Your task to perform on an android device: Add "logitech g903" to the cart on ebay.com Image 0: 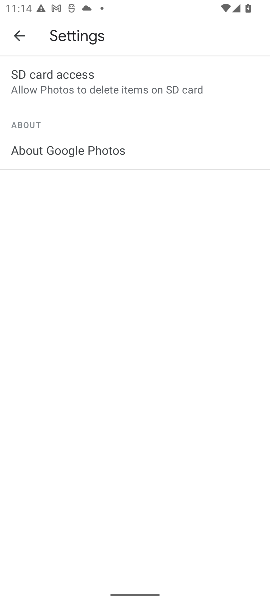
Step 0: press home button
Your task to perform on an android device: Add "logitech g903" to the cart on ebay.com Image 1: 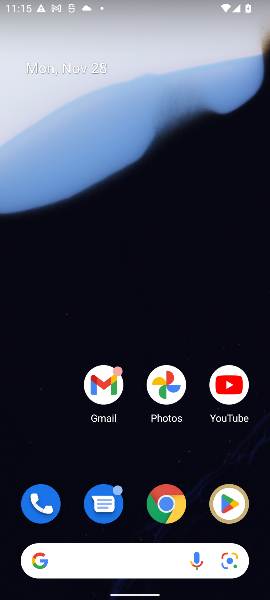
Step 1: click (161, 503)
Your task to perform on an android device: Add "logitech g903" to the cart on ebay.com Image 2: 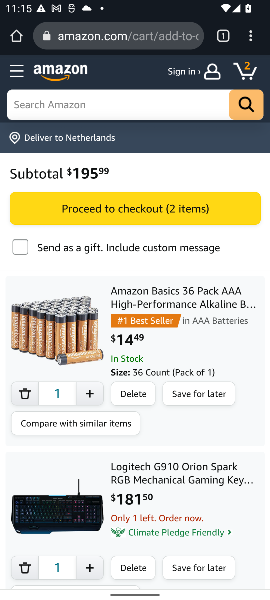
Step 2: click (110, 38)
Your task to perform on an android device: Add "logitech g903" to the cart on ebay.com Image 3: 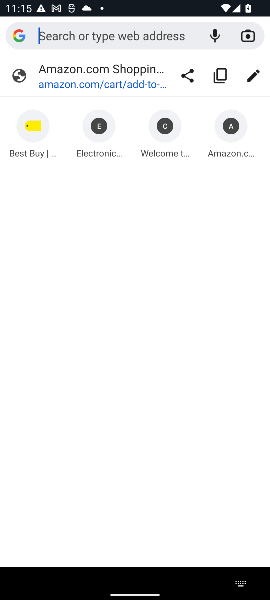
Step 3: type "ebay.com"
Your task to perform on an android device: Add "logitech g903" to the cart on ebay.com Image 4: 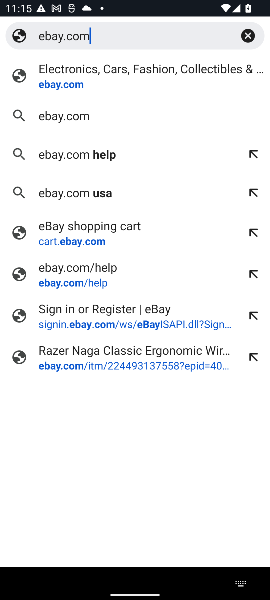
Step 4: click (55, 89)
Your task to perform on an android device: Add "logitech g903" to the cart on ebay.com Image 5: 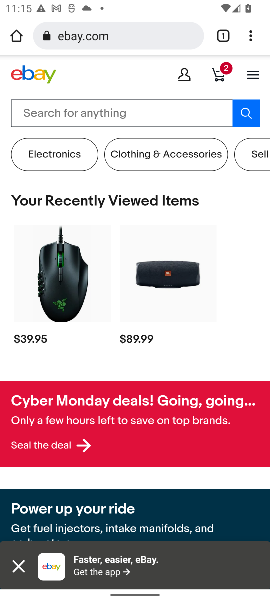
Step 5: click (56, 110)
Your task to perform on an android device: Add "logitech g903" to the cart on ebay.com Image 6: 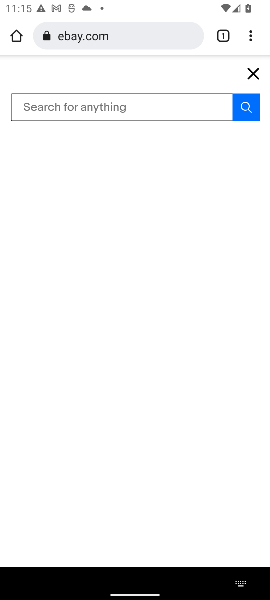
Step 6: type "logitech g903"
Your task to perform on an android device: Add "logitech g903" to the cart on ebay.com Image 7: 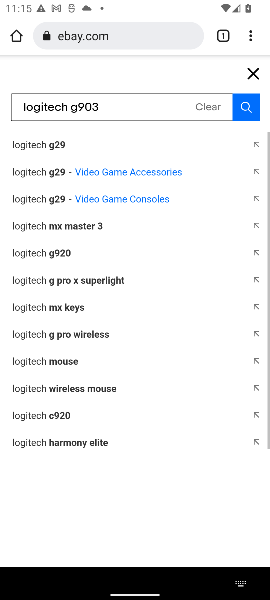
Step 7: click (244, 108)
Your task to perform on an android device: Add "logitech g903" to the cart on ebay.com Image 8: 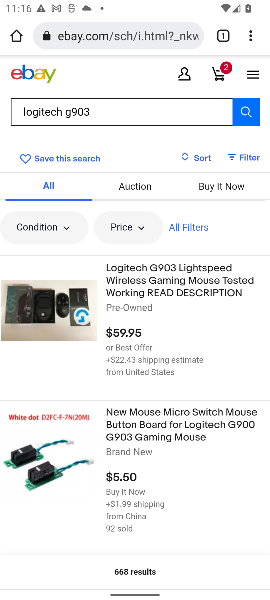
Step 8: click (141, 288)
Your task to perform on an android device: Add "logitech g903" to the cart on ebay.com Image 9: 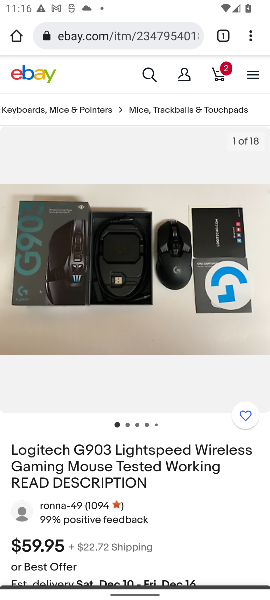
Step 9: drag from (166, 480) to (166, 237)
Your task to perform on an android device: Add "logitech g903" to the cart on ebay.com Image 10: 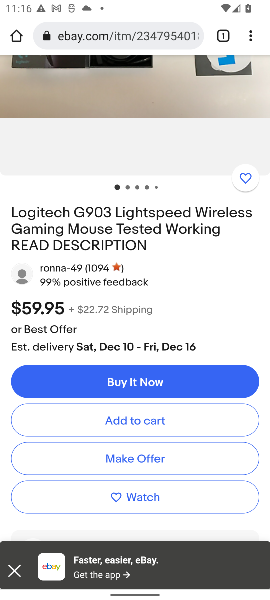
Step 10: click (102, 421)
Your task to perform on an android device: Add "logitech g903" to the cart on ebay.com Image 11: 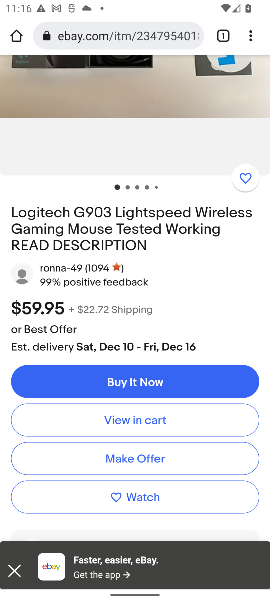
Step 11: task complete